Your task to perform on an android device: Turn on the flashlight Image 0: 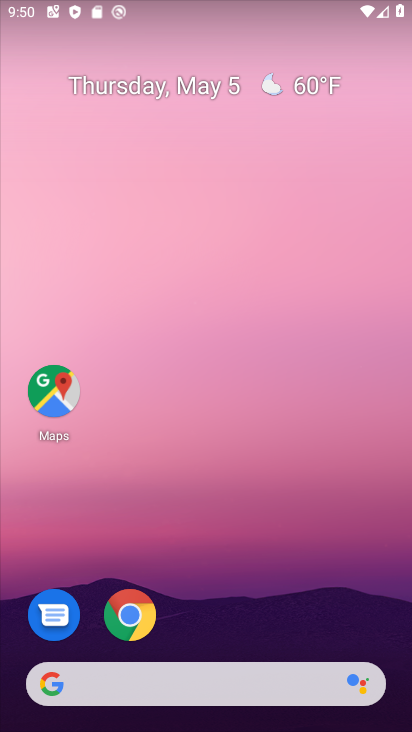
Step 0: drag from (217, 612) to (333, 95)
Your task to perform on an android device: Turn on the flashlight Image 1: 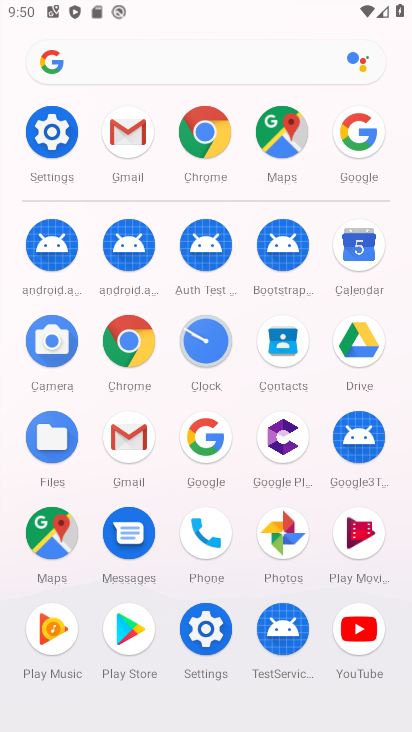
Step 1: click (46, 134)
Your task to perform on an android device: Turn on the flashlight Image 2: 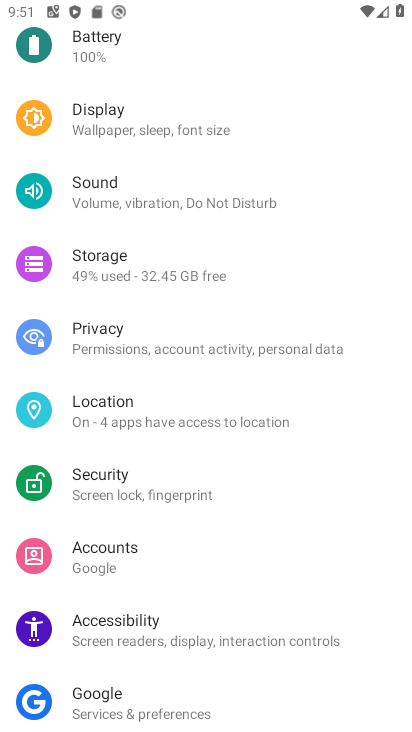
Step 2: drag from (277, 234) to (275, 631)
Your task to perform on an android device: Turn on the flashlight Image 3: 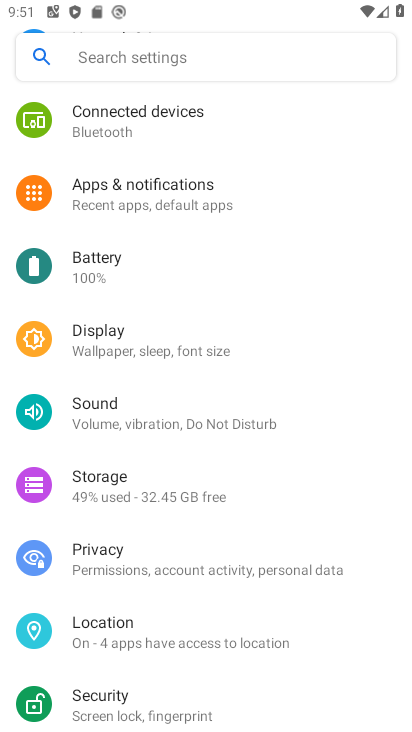
Step 3: click (172, 59)
Your task to perform on an android device: Turn on the flashlight Image 4: 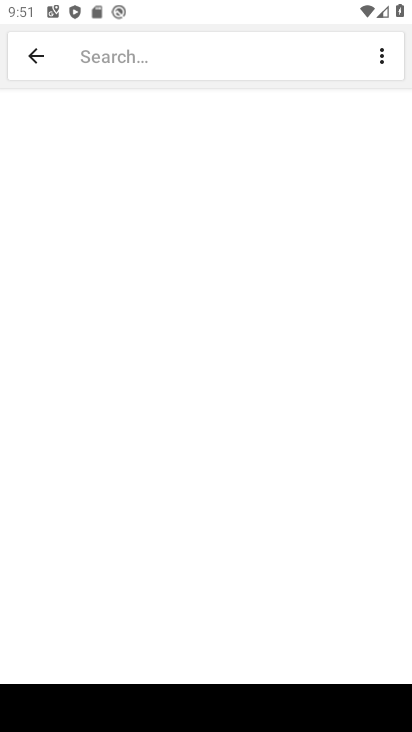
Step 4: type "flash"
Your task to perform on an android device: Turn on the flashlight Image 5: 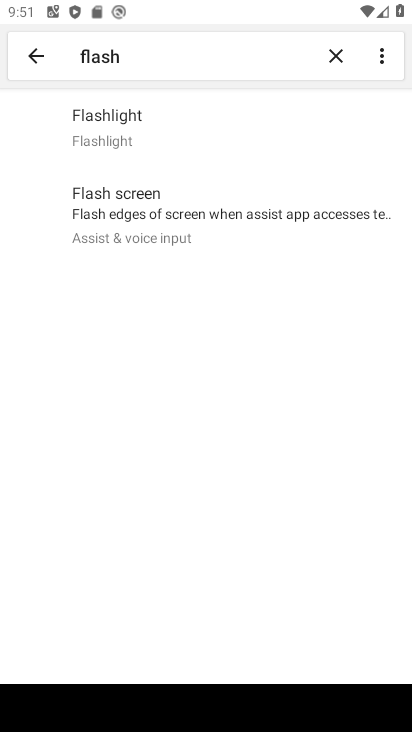
Step 5: click (106, 134)
Your task to perform on an android device: Turn on the flashlight Image 6: 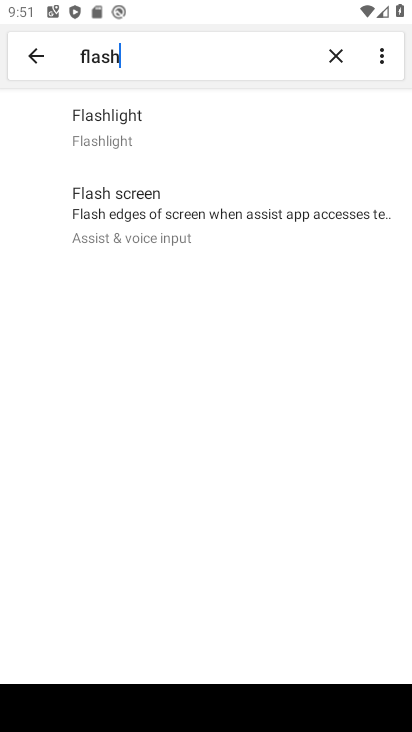
Step 6: task complete